Your task to perform on an android device: Do I have any events this weekend? Image 0: 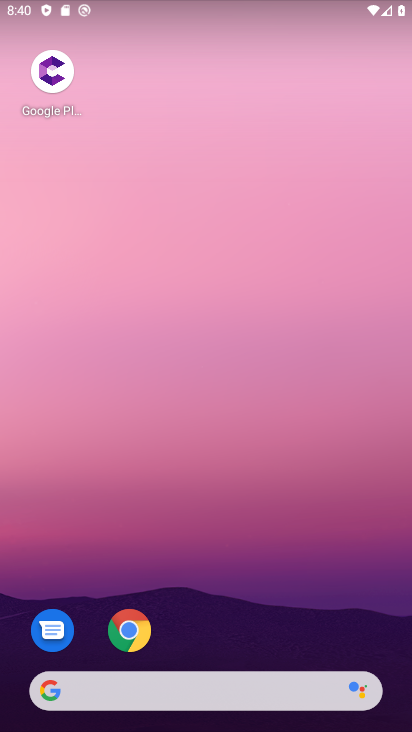
Step 0: drag from (349, 632) to (357, 142)
Your task to perform on an android device: Do I have any events this weekend? Image 1: 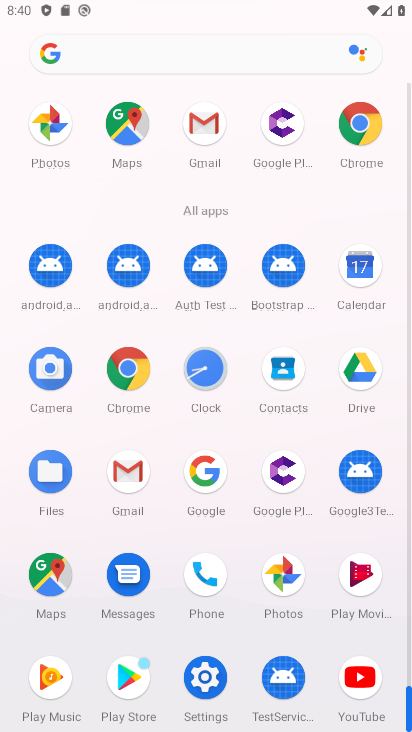
Step 1: click (361, 272)
Your task to perform on an android device: Do I have any events this weekend? Image 2: 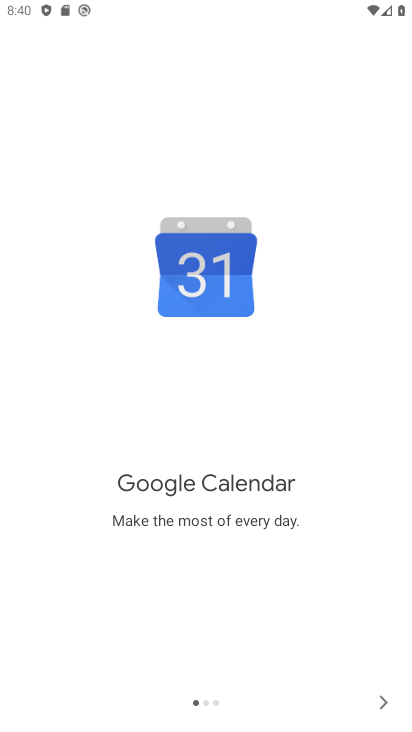
Step 2: click (386, 702)
Your task to perform on an android device: Do I have any events this weekend? Image 3: 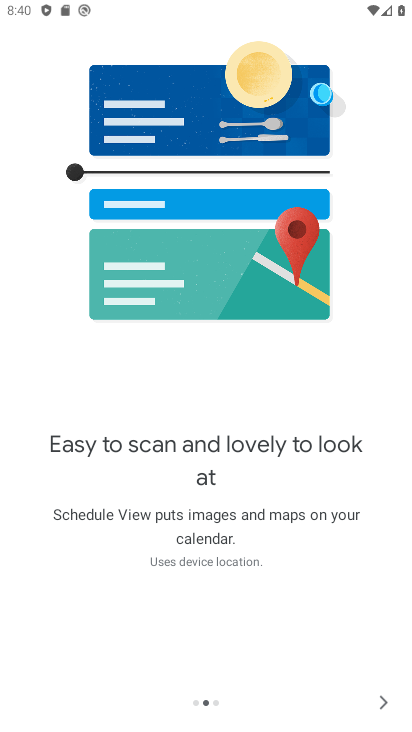
Step 3: click (386, 702)
Your task to perform on an android device: Do I have any events this weekend? Image 4: 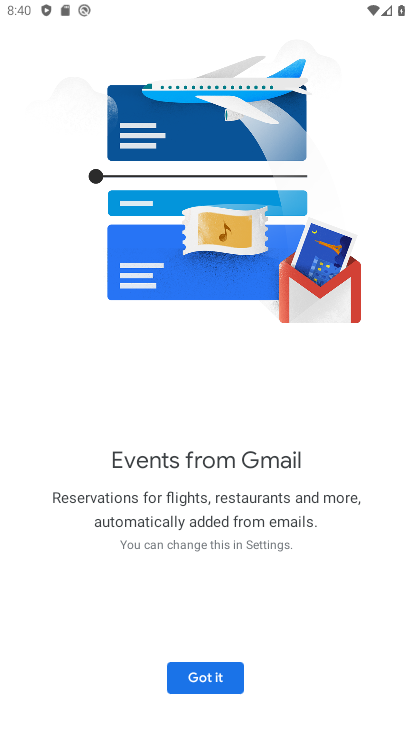
Step 4: click (228, 688)
Your task to perform on an android device: Do I have any events this weekend? Image 5: 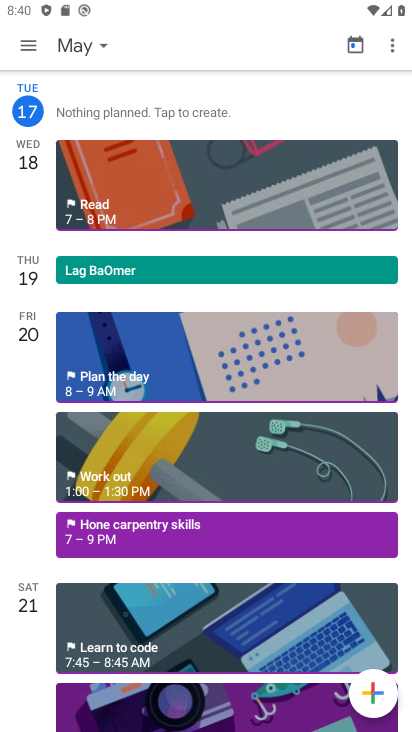
Step 5: task complete